Your task to perform on an android device: Open Amazon Image 0: 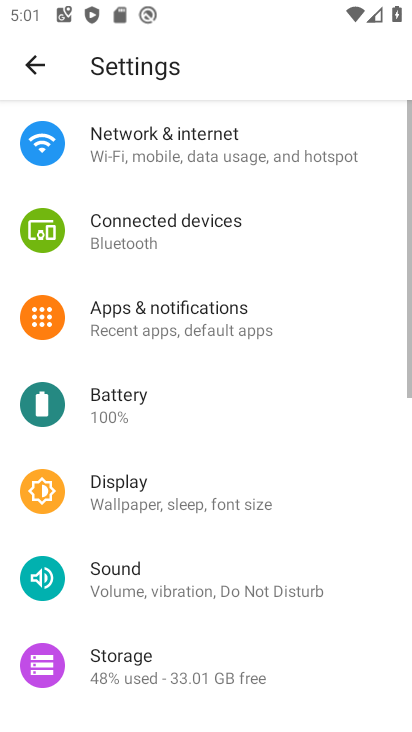
Step 0: press home button
Your task to perform on an android device: Open Amazon Image 1: 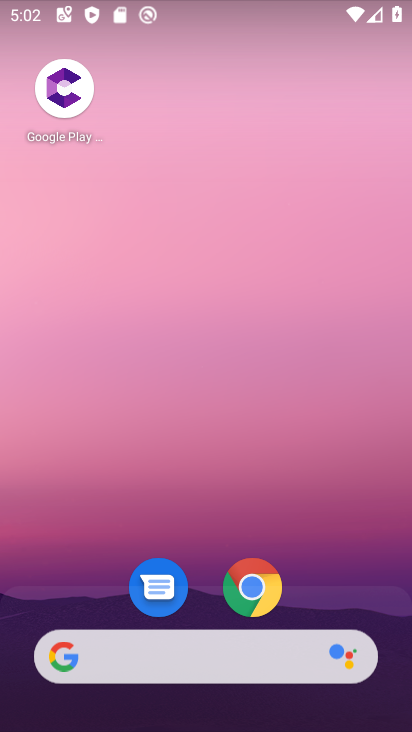
Step 1: click (252, 589)
Your task to perform on an android device: Open Amazon Image 2: 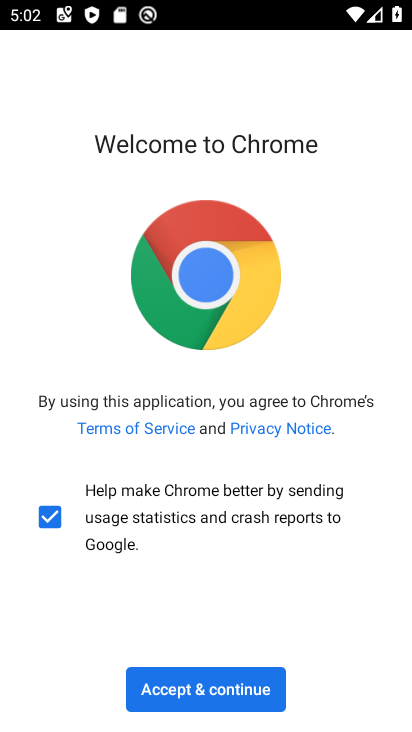
Step 2: click (207, 697)
Your task to perform on an android device: Open Amazon Image 3: 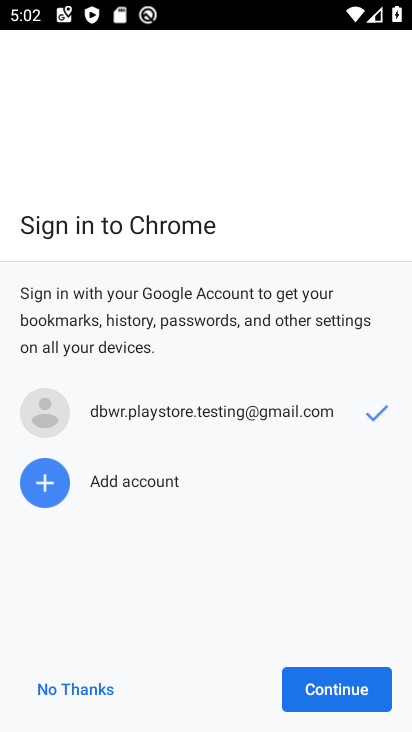
Step 3: click (341, 684)
Your task to perform on an android device: Open Amazon Image 4: 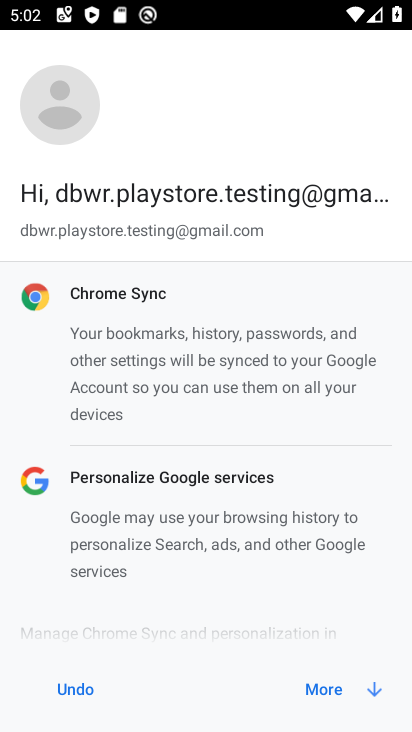
Step 4: click (341, 684)
Your task to perform on an android device: Open Amazon Image 5: 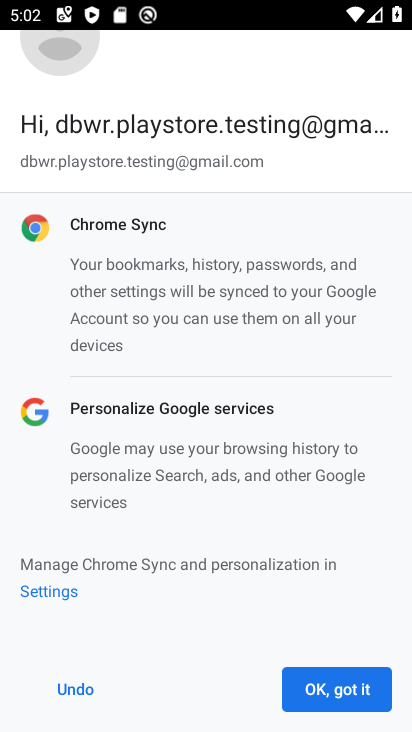
Step 5: click (341, 684)
Your task to perform on an android device: Open Amazon Image 6: 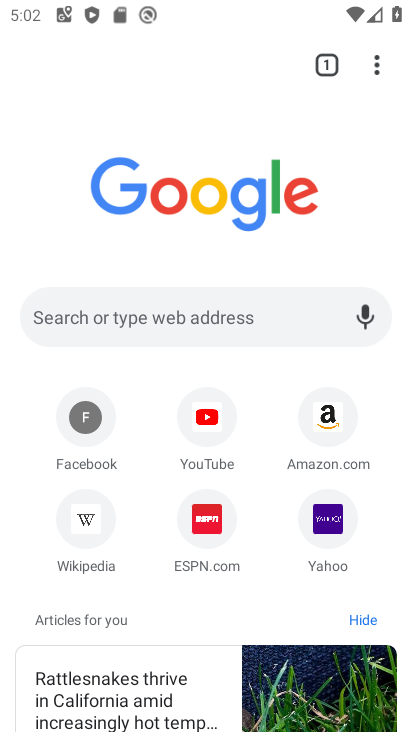
Step 6: click (329, 415)
Your task to perform on an android device: Open Amazon Image 7: 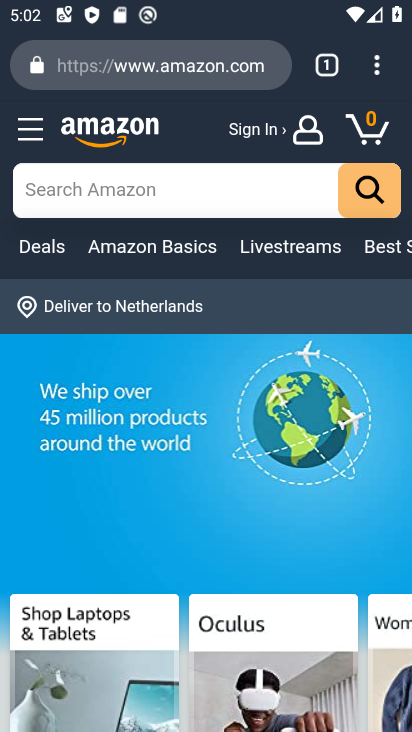
Step 7: task complete